Your task to perform on an android device: snooze an email in the gmail app Image 0: 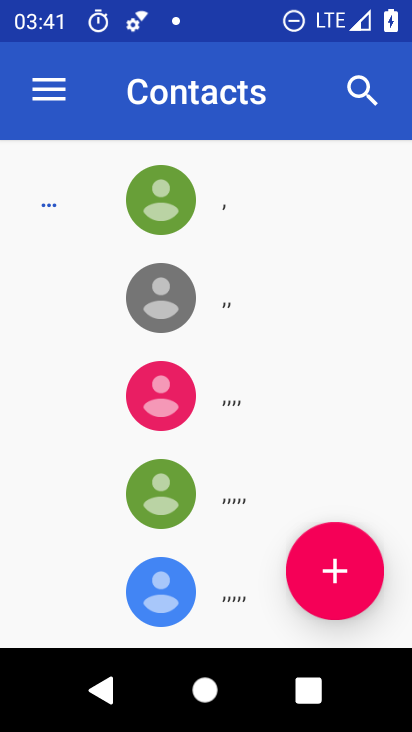
Step 0: press home button
Your task to perform on an android device: snooze an email in the gmail app Image 1: 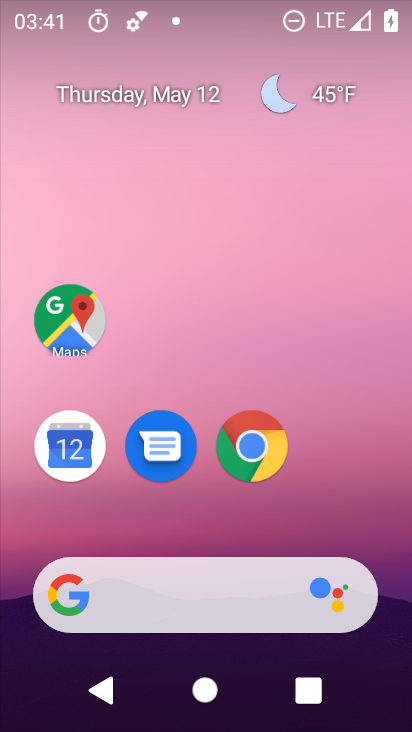
Step 1: drag from (193, 522) to (179, 204)
Your task to perform on an android device: snooze an email in the gmail app Image 2: 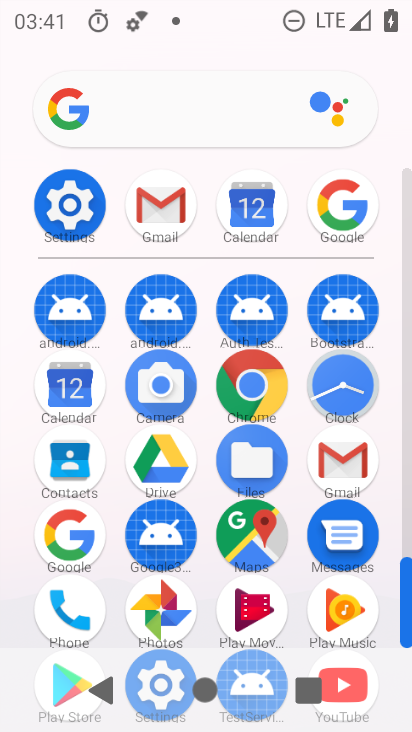
Step 2: click (176, 191)
Your task to perform on an android device: snooze an email in the gmail app Image 3: 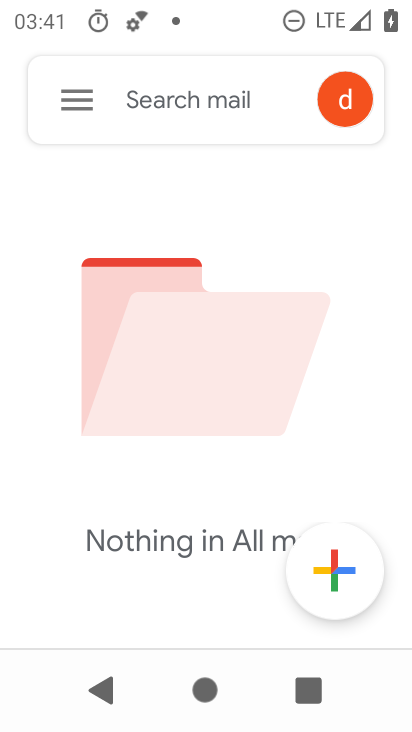
Step 3: click (75, 105)
Your task to perform on an android device: snooze an email in the gmail app Image 4: 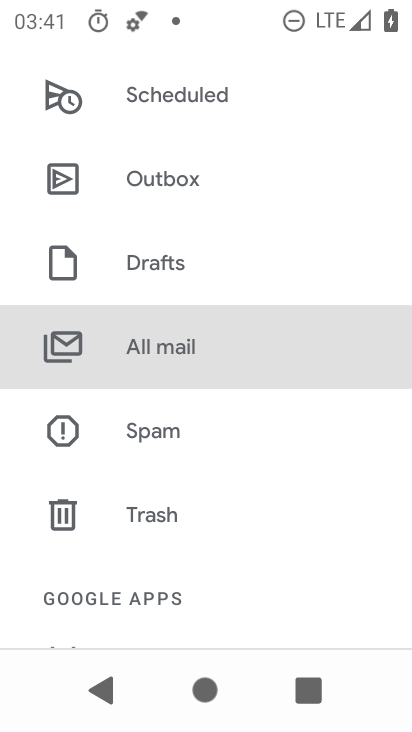
Step 4: drag from (212, 490) to (225, 372)
Your task to perform on an android device: snooze an email in the gmail app Image 5: 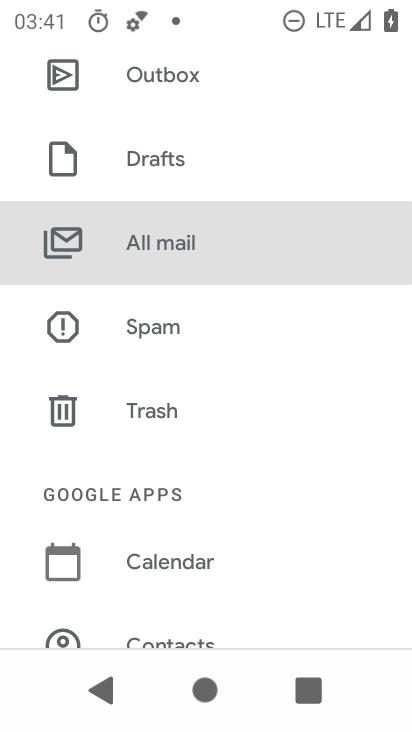
Step 5: drag from (234, 275) to (246, 389)
Your task to perform on an android device: snooze an email in the gmail app Image 6: 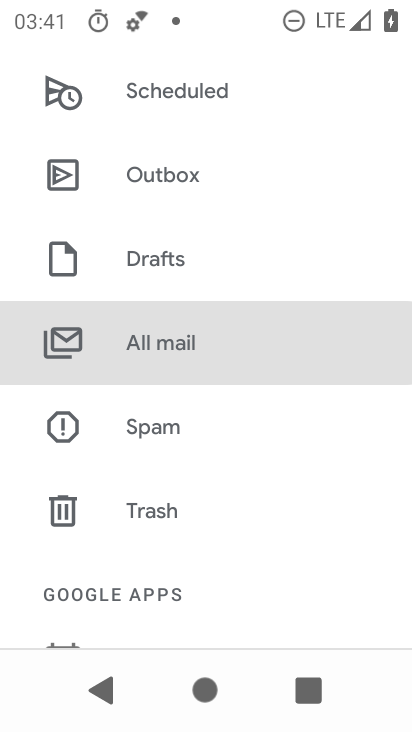
Step 6: click (196, 332)
Your task to perform on an android device: snooze an email in the gmail app Image 7: 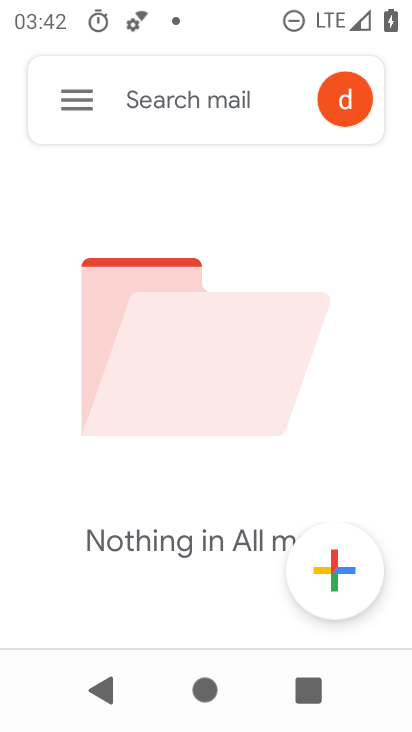
Step 7: task complete